Your task to perform on an android device: change the clock style Image 0: 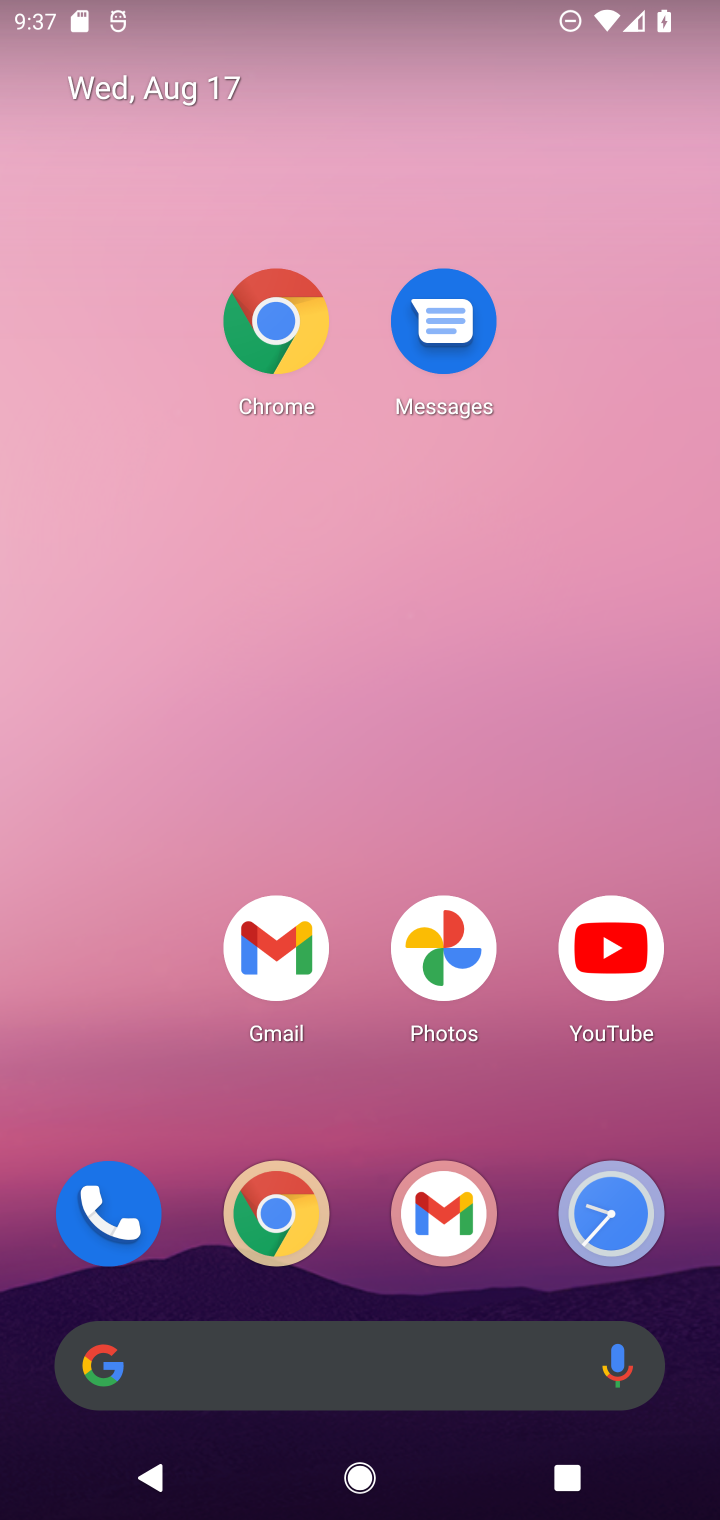
Step 0: click (591, 1209)
Your task to perform on an android device: change the clock style Image 1: 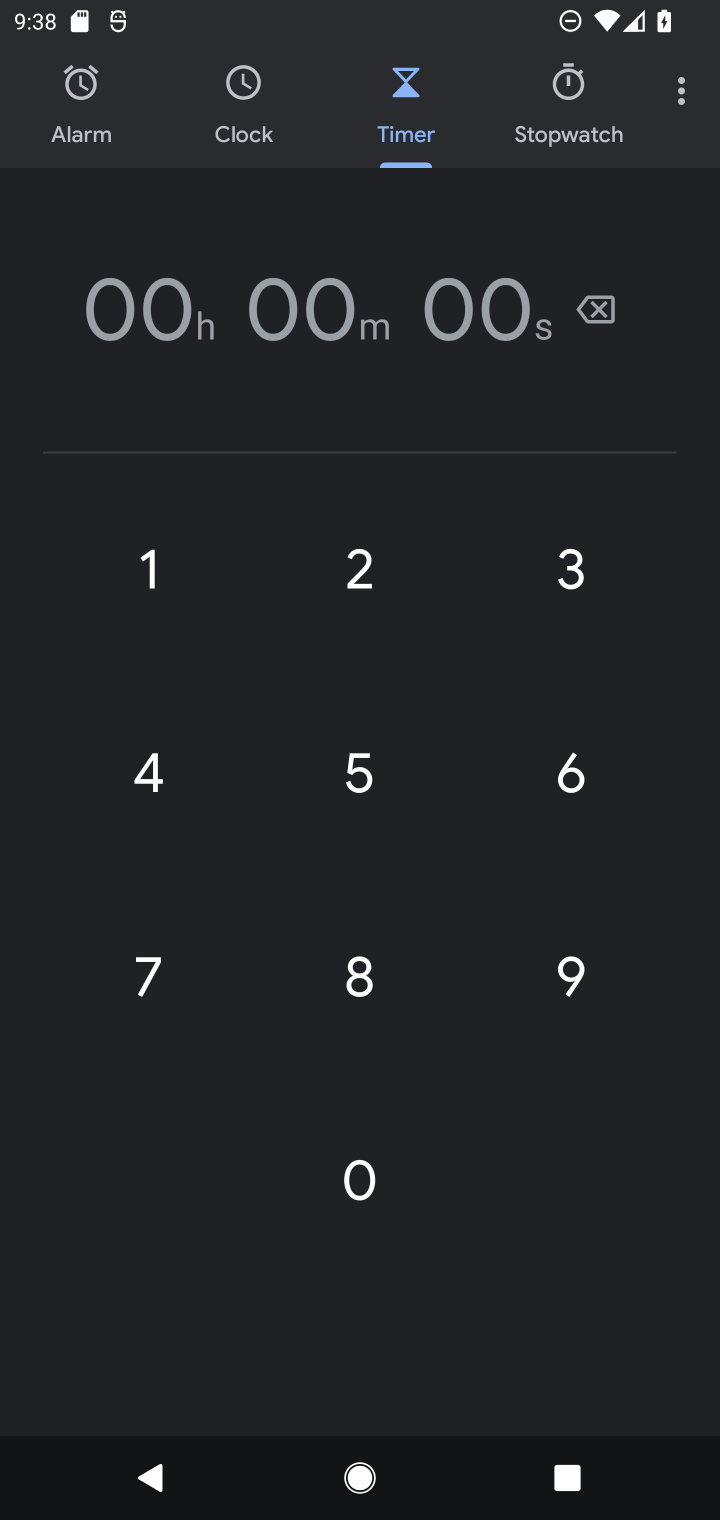
Step 1: click (668, 83)
Your task to perform on an android device: change the clock style Image 2: 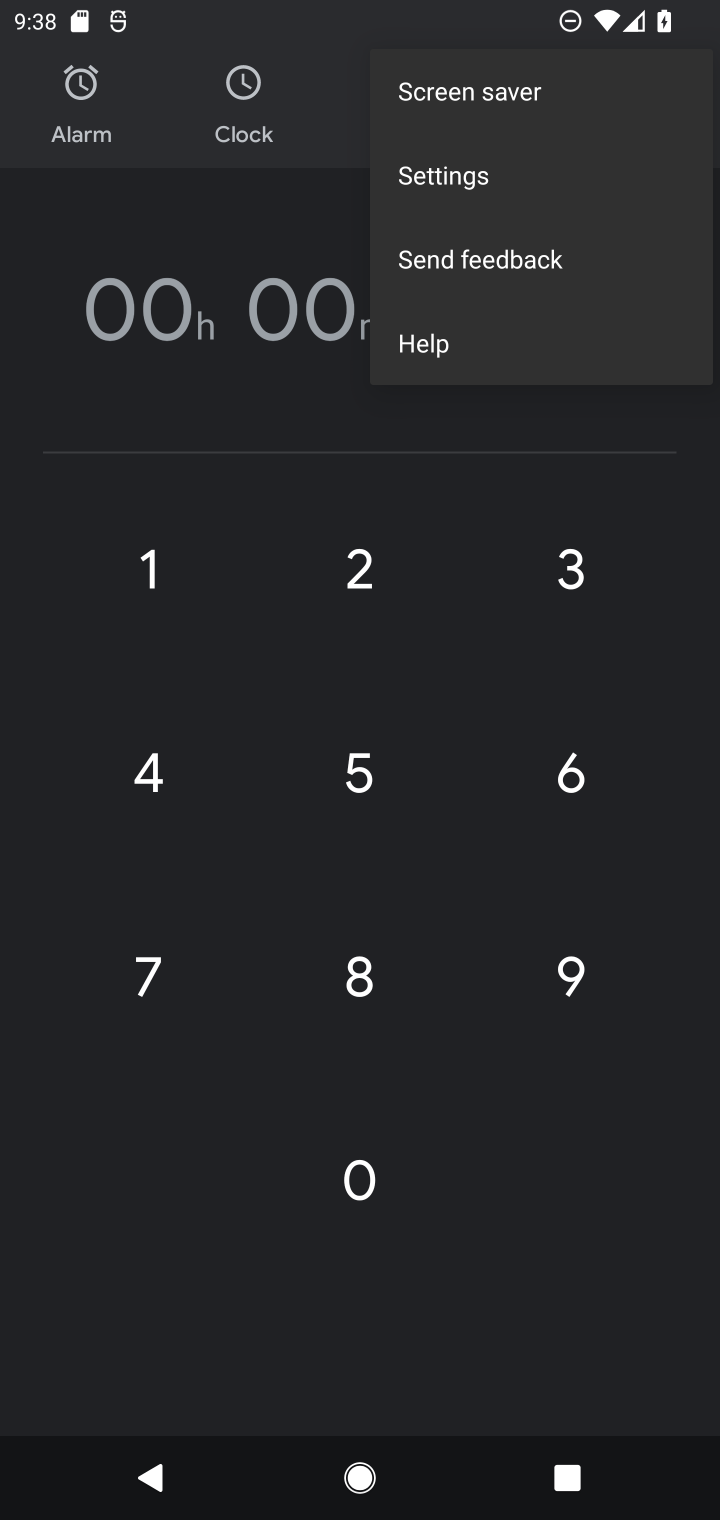
Step 2: click (483, 192)
Your task to perform on an android device: change the clock style Image 3: 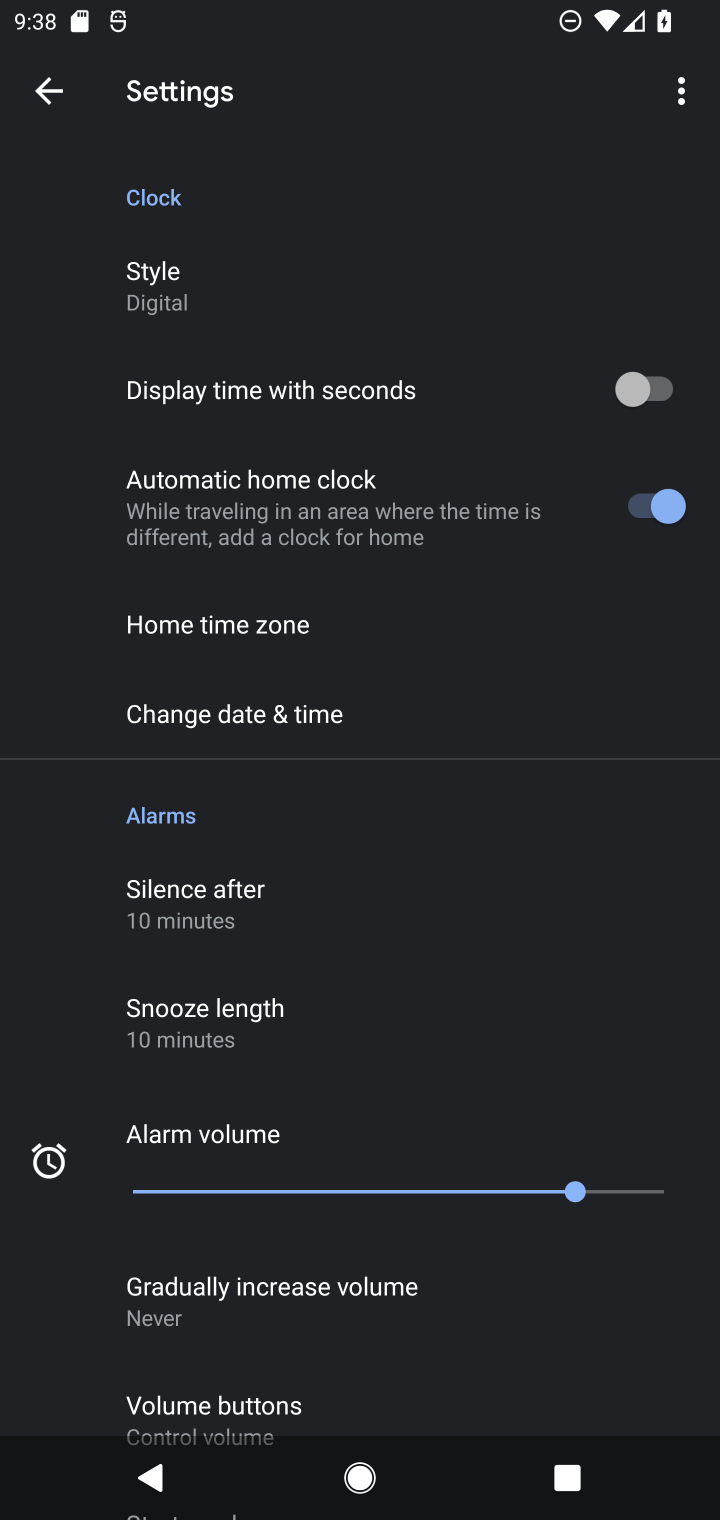
Step 3: click (243, 303)
Your task to perform on an android device: change the clock style Image 4: 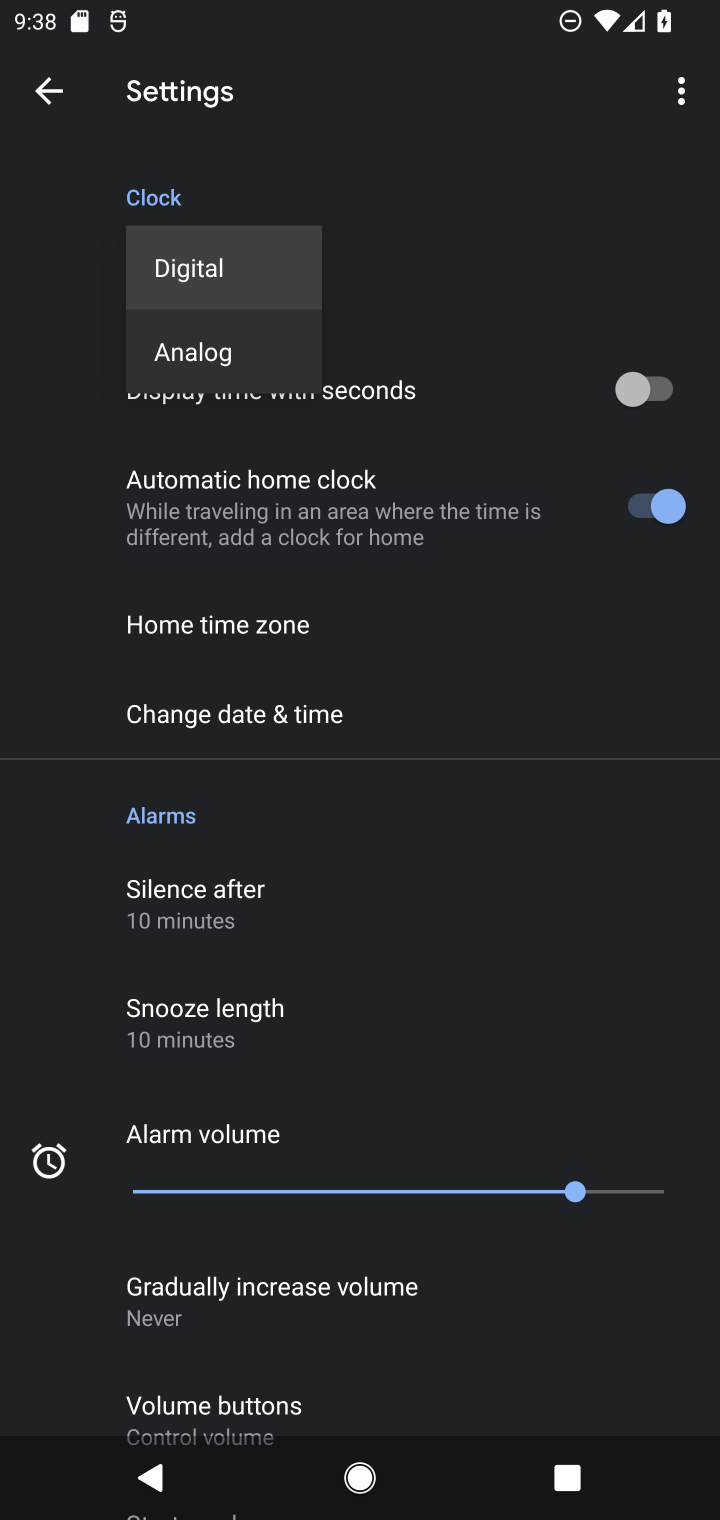
Step 4: click (242, 341)
Your task to perform on an android device: change the clock style Image 5: 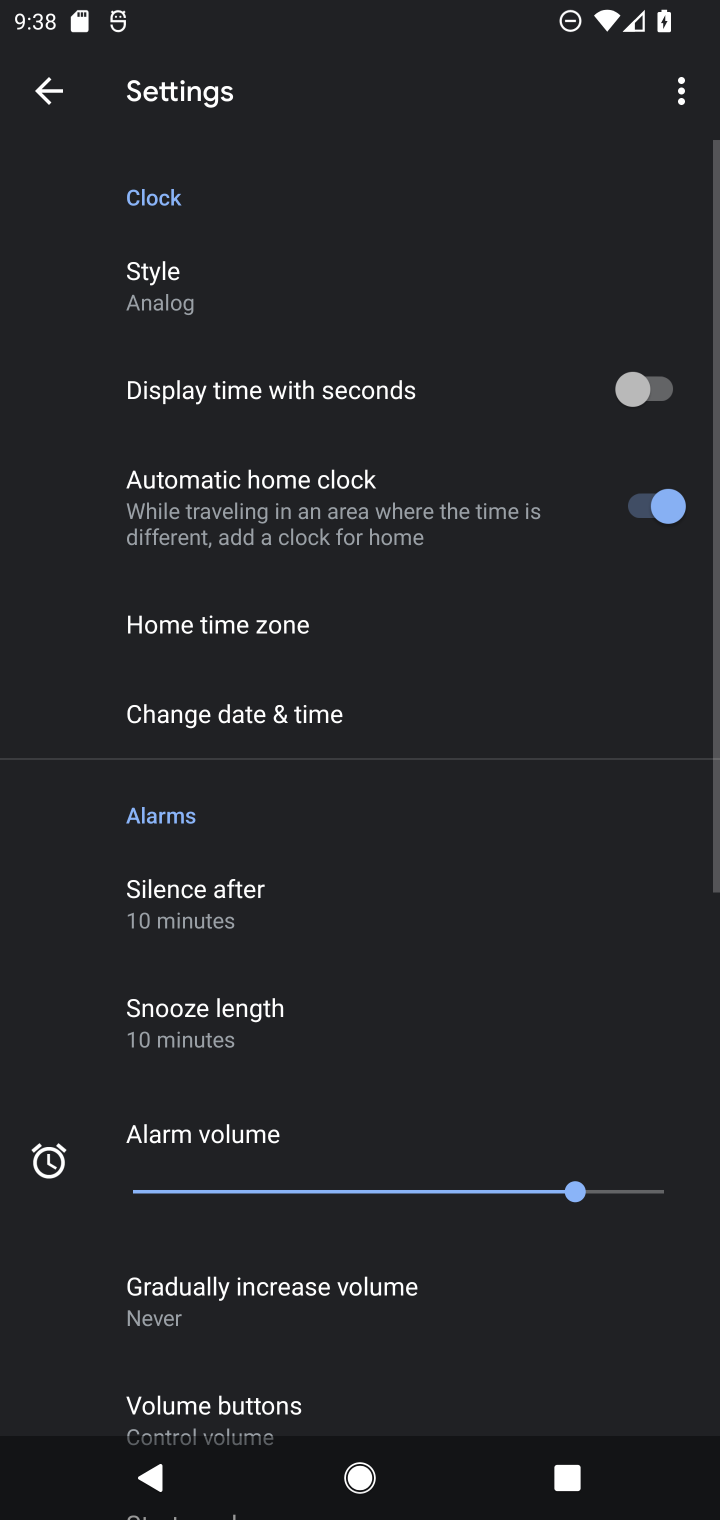
Step 5: task complete